Your task to perform on an android device: Empty the shopping cart on ebay. Image 0: 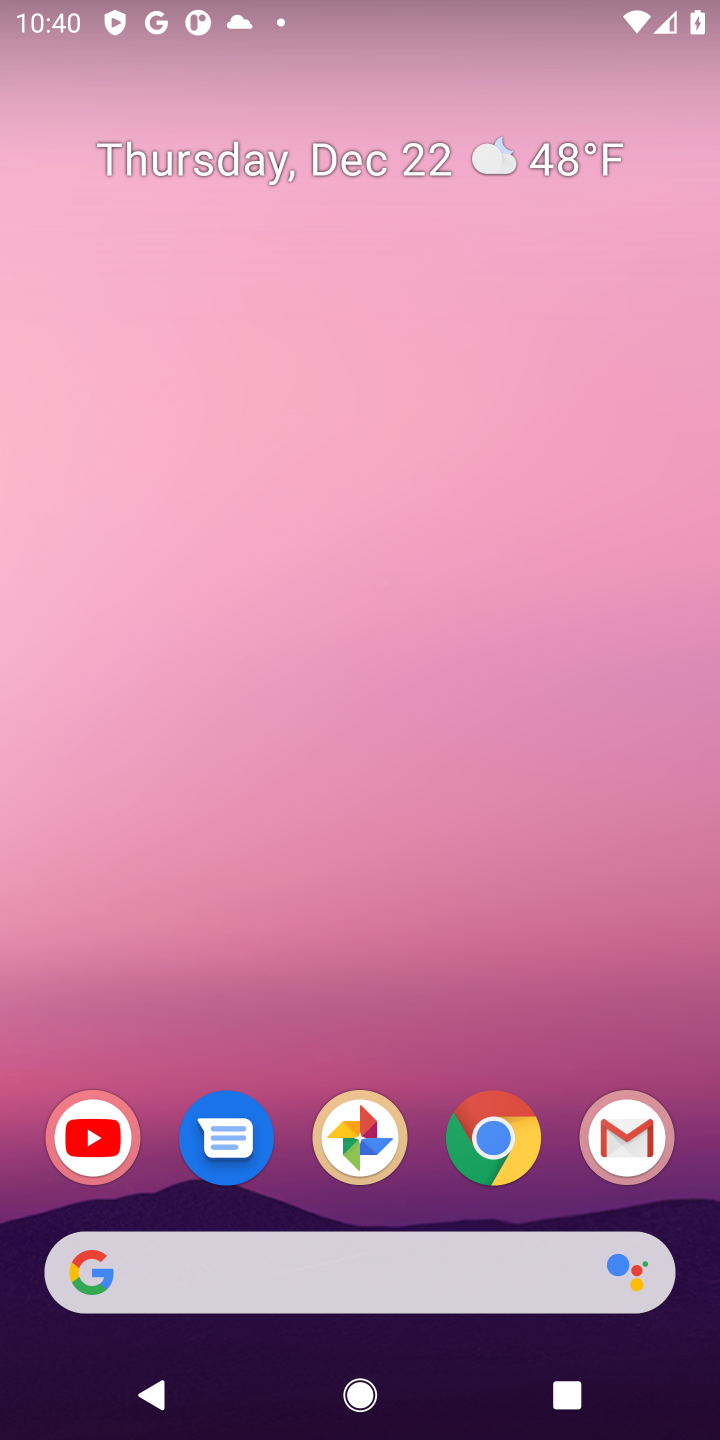
Step 0: click (508, 1126)
Your task to perform on an android device: Empty the shopping cart on ebay. Image 1: 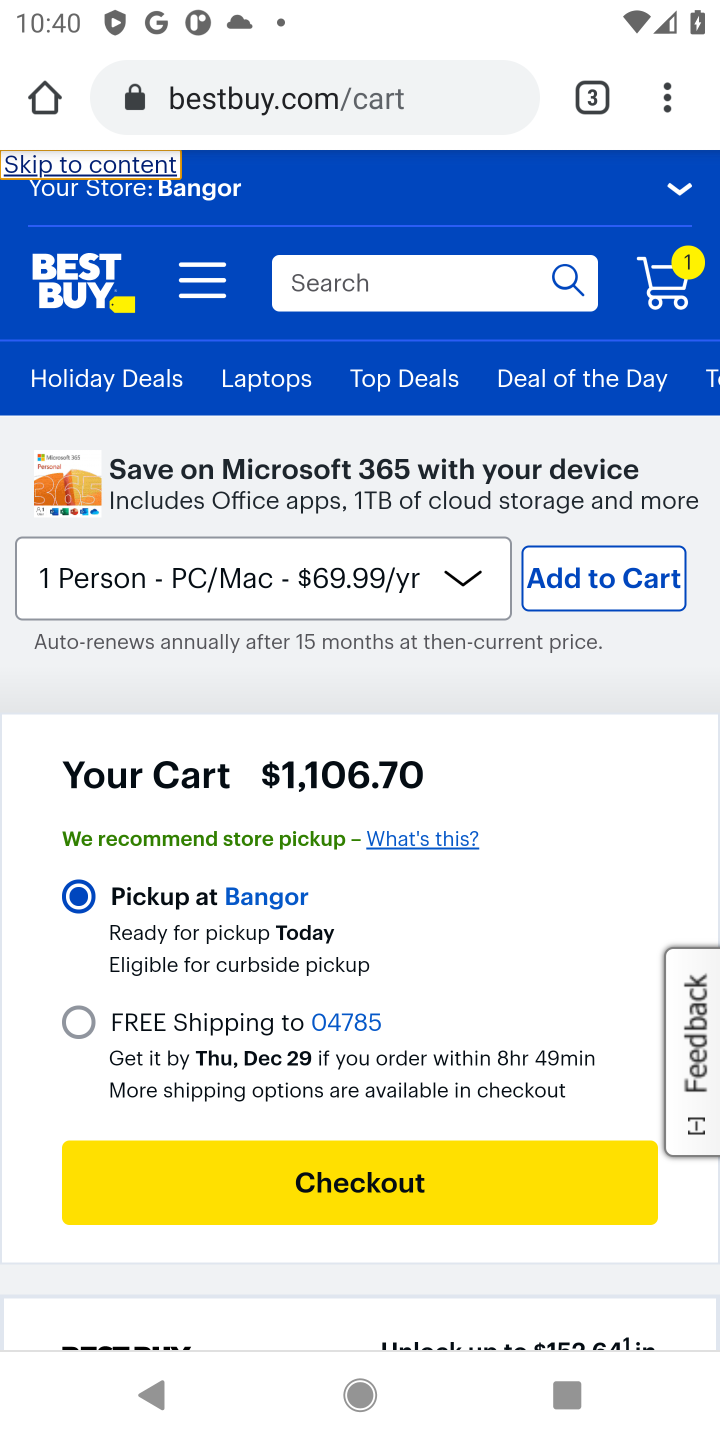
Step 1: click (358, 90)
Your task to perform on an android device: Empty the shopping cart on ebay. Image 2: 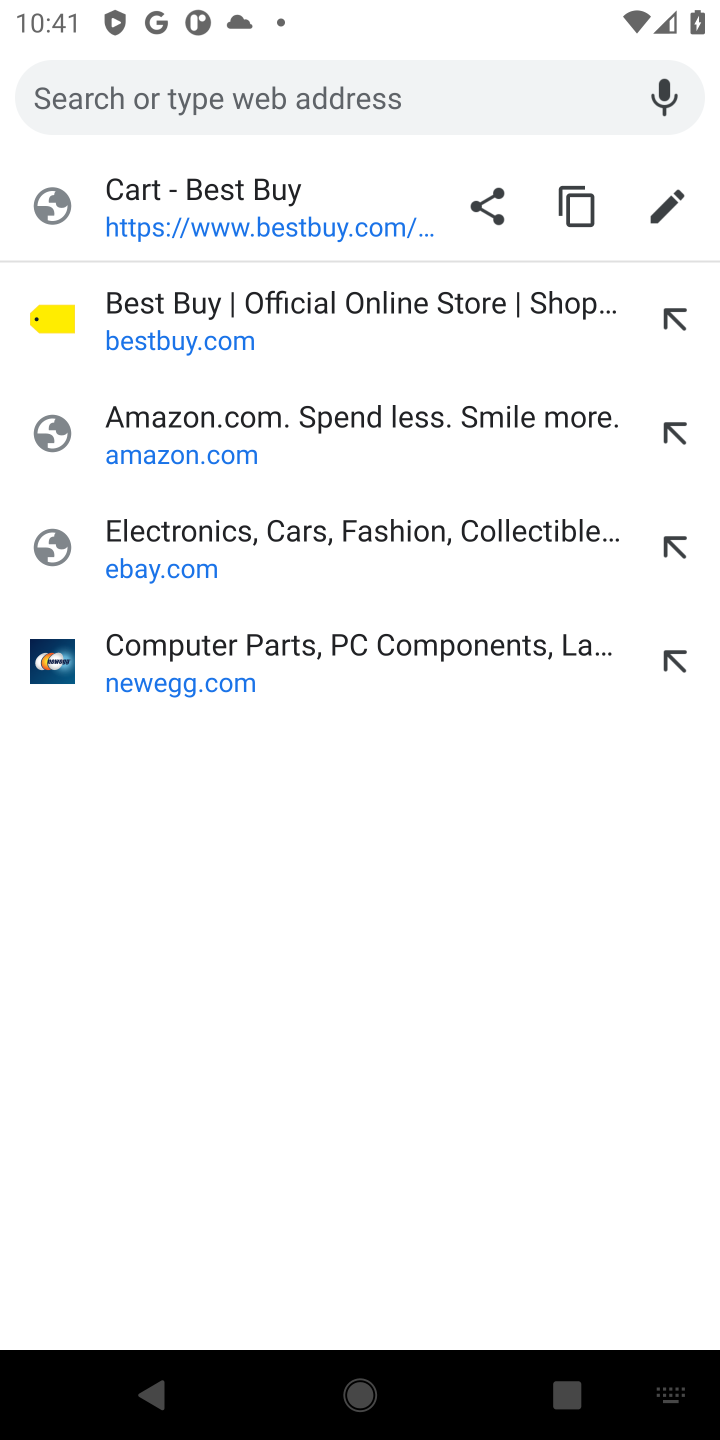
Step 2: click (183, 520)
Your task to perform on an android device: Empty the shopping cart on ebay. Image 3: 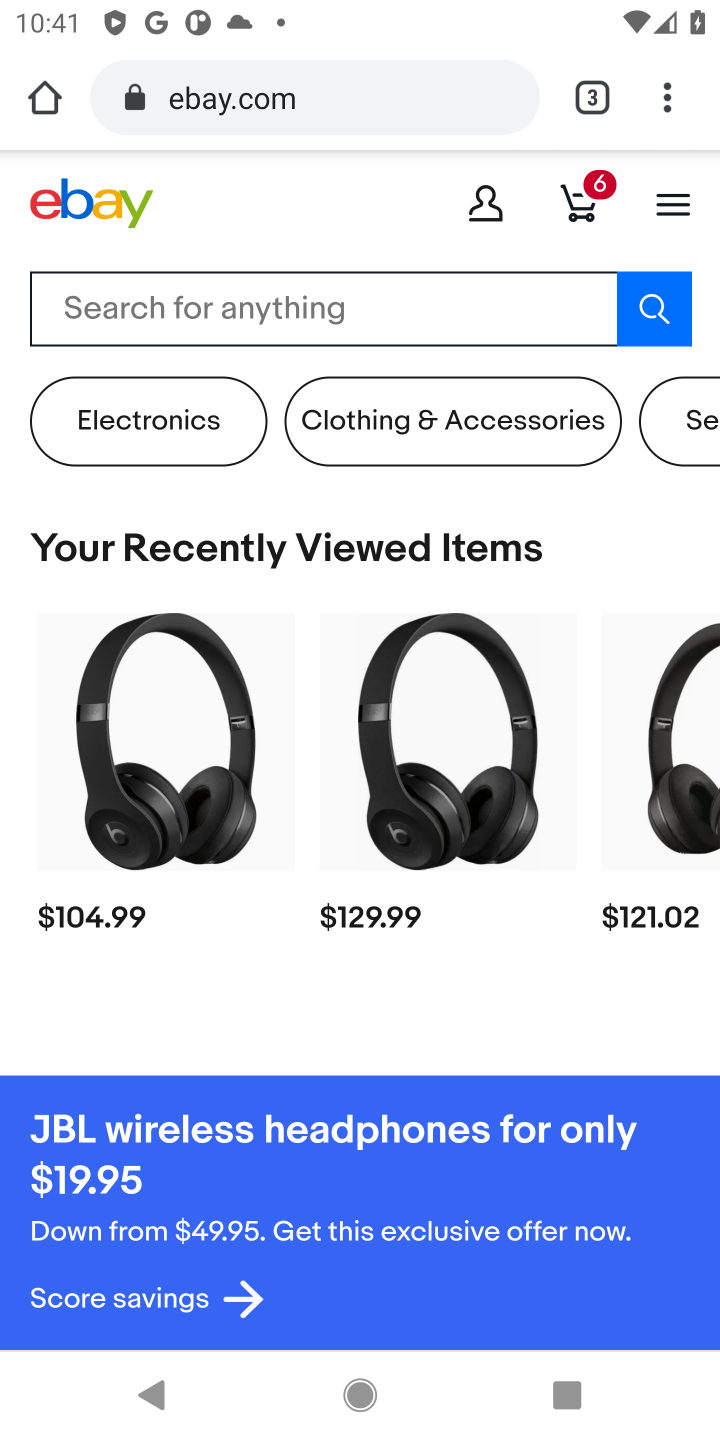
Step 3: click (575, 200)
Your task to perform on an android device: Empty the shopping cart on ebay. Image 4: 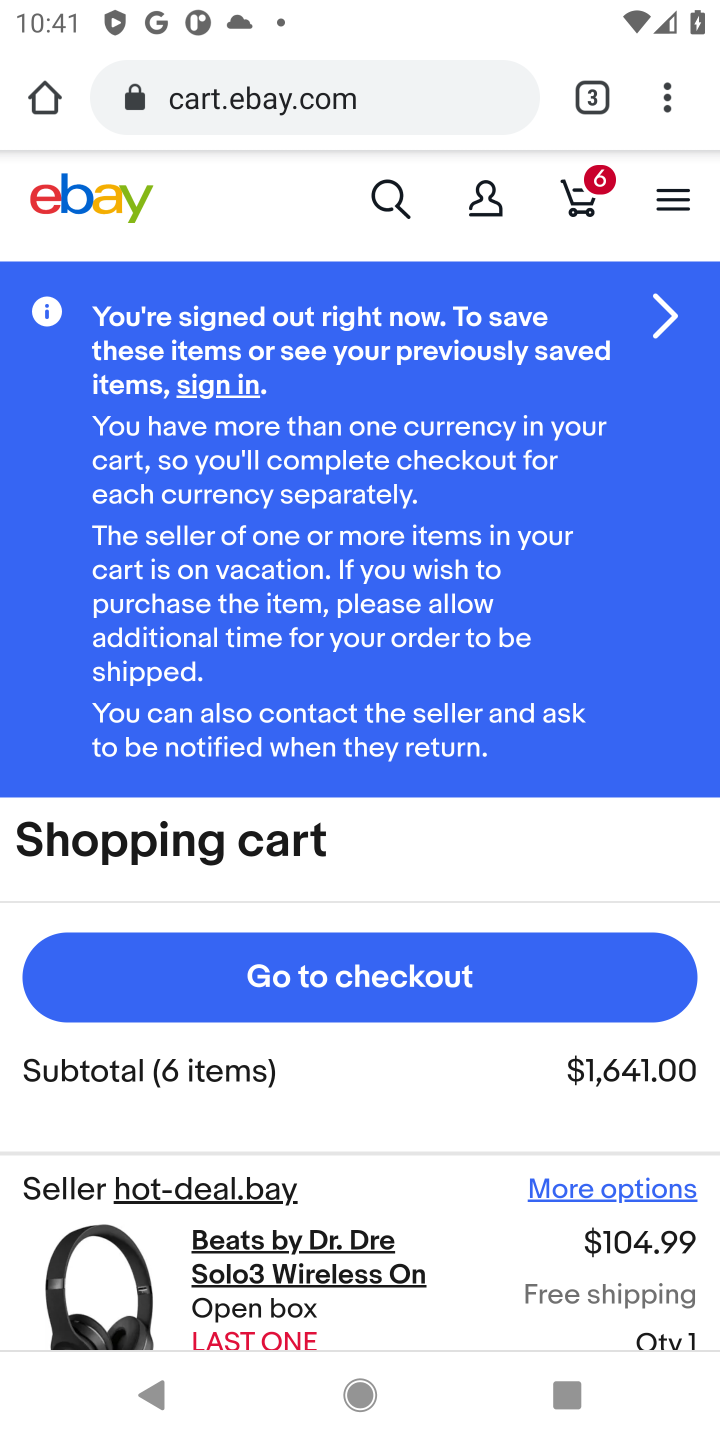
Step 4: drag from (442, 1120) to (440, 373)
Your task to perform on an android device: Empty the shopping cart on ebay. Image 5: 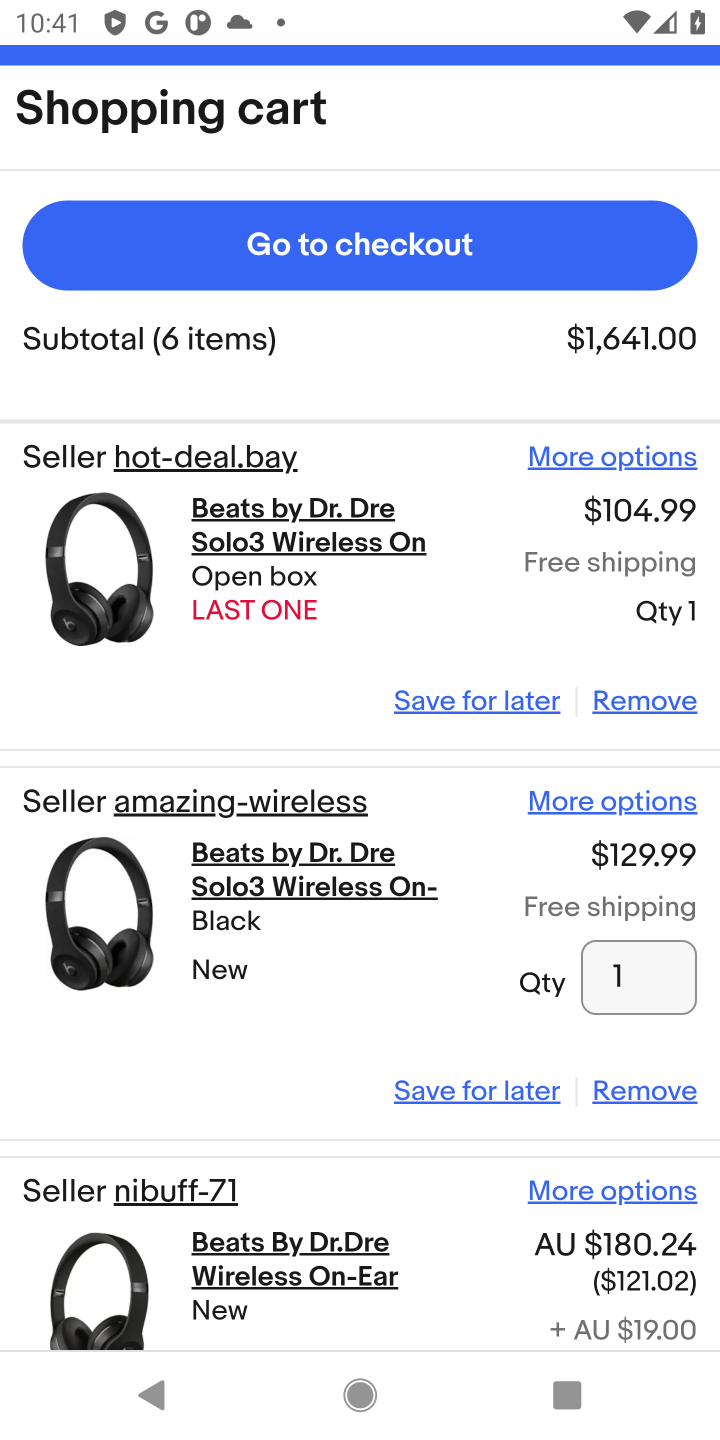
Step 5: click (655, 697)
Your task to perform on an android device: Empty the shopping cart on ebay. Image 6: 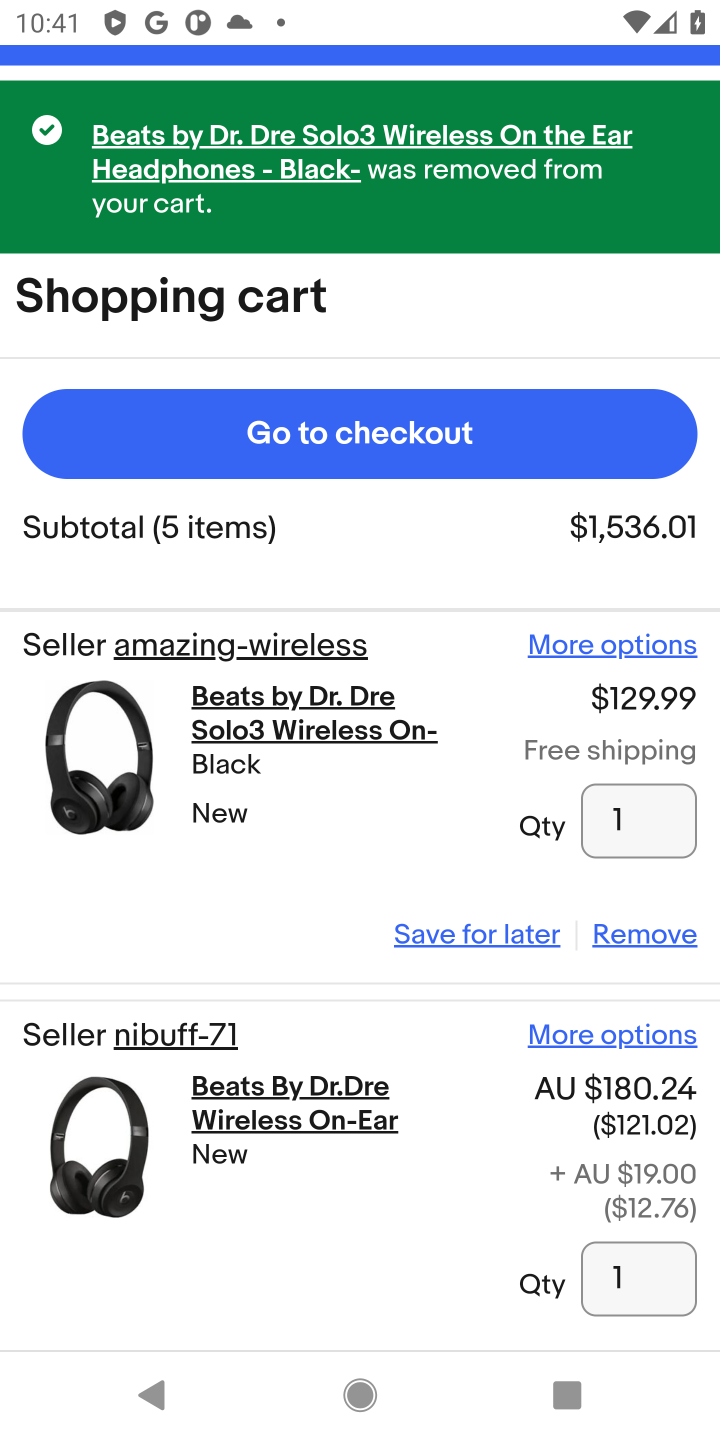
Step 6: click (663, 934)
Your task to perform on an android device: Empty the shopping cart on ebay. Image 7: 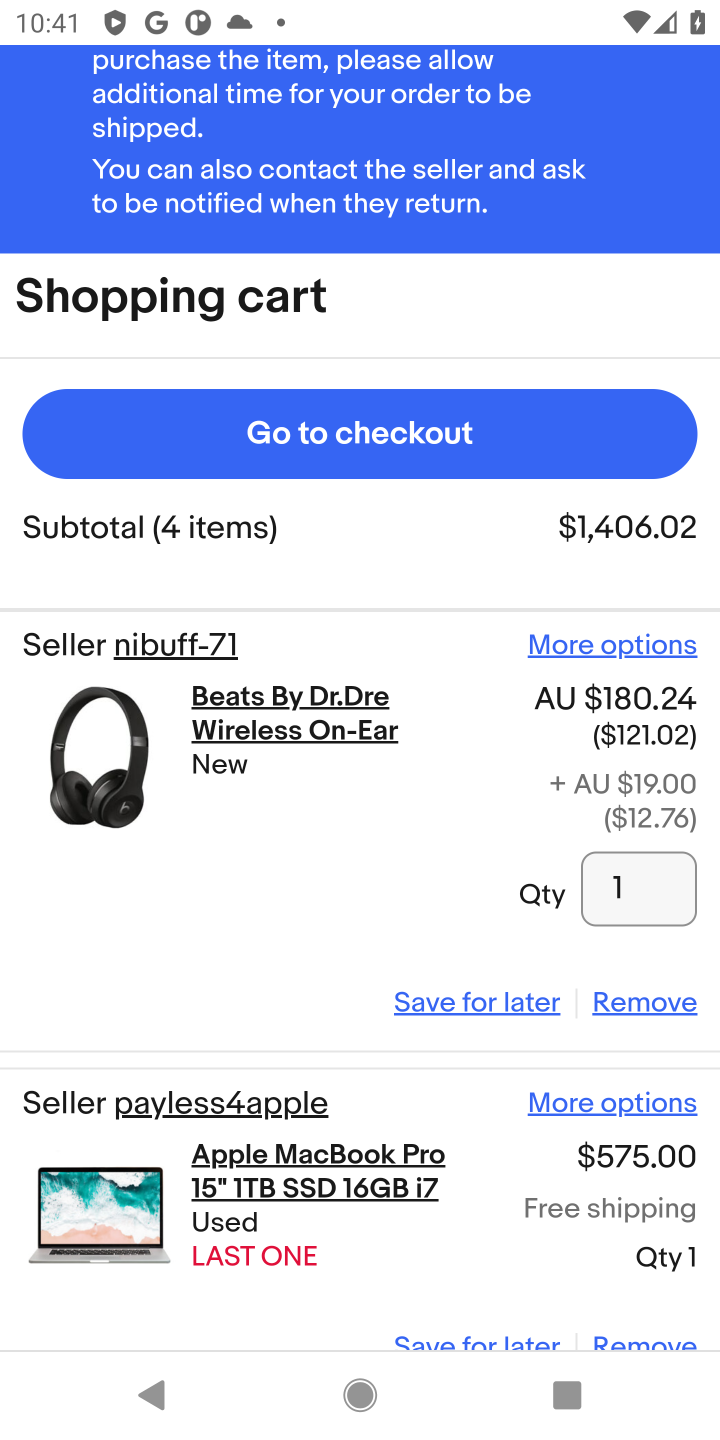
Step 7: click (637, 992)
Your task to perform on an android device: Empty the shopping cart on ebay. Image 8: 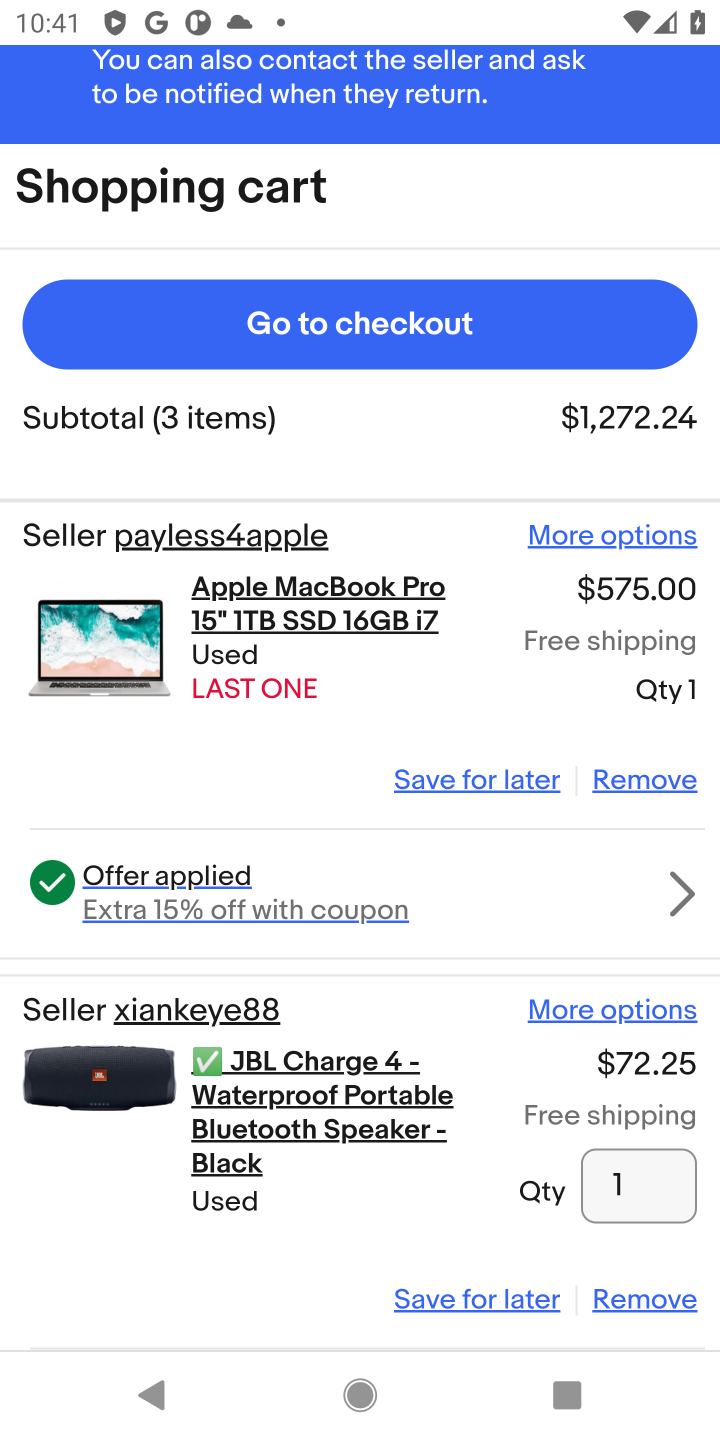
Step 8: click (651, 786)
Your task to perform on an android device: Empty the shopping cart on ebay. Image 9: 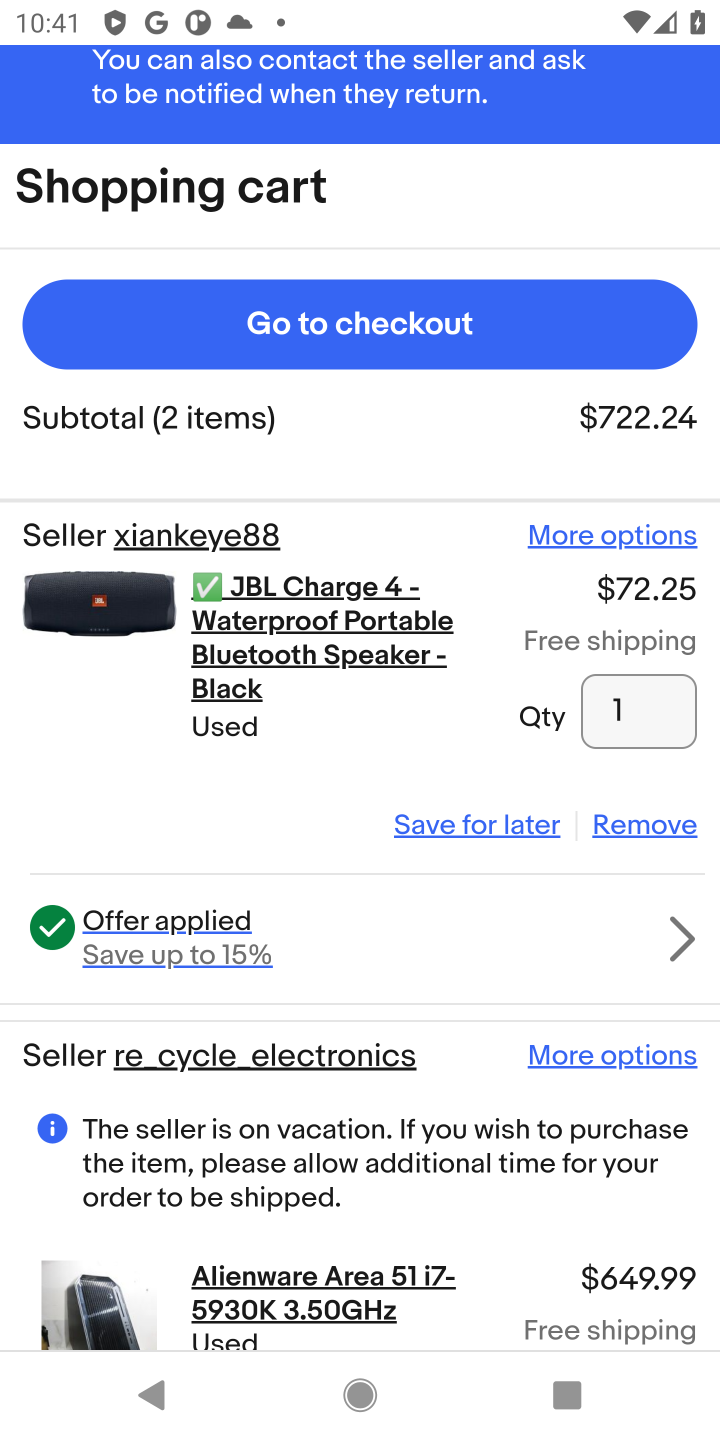
Step 9: click (643, 821)
Your task to perform on an android device: Empty the shopping cart on ebay. Image 10: 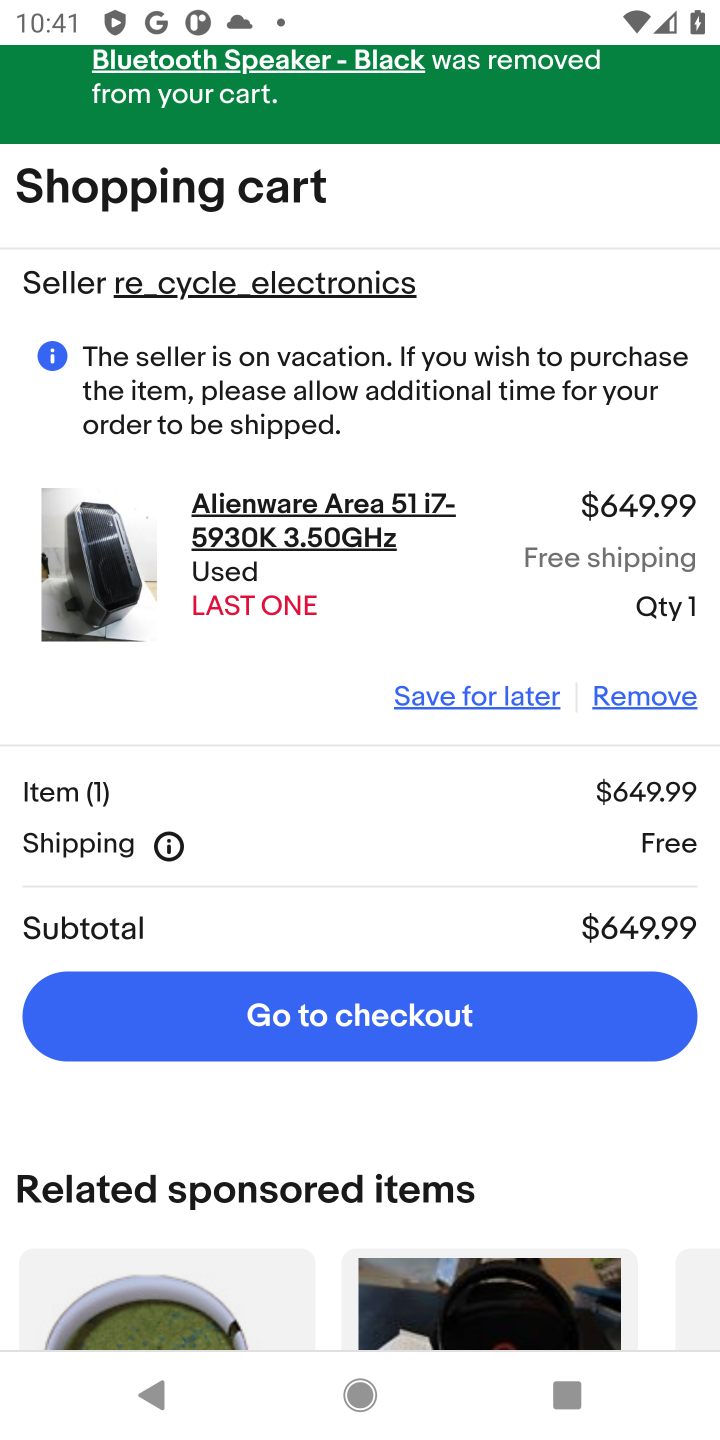
Step 10: click (646, 681)
Your task to perform on an android device: Empty the shopping cart on ebay. Image 11: 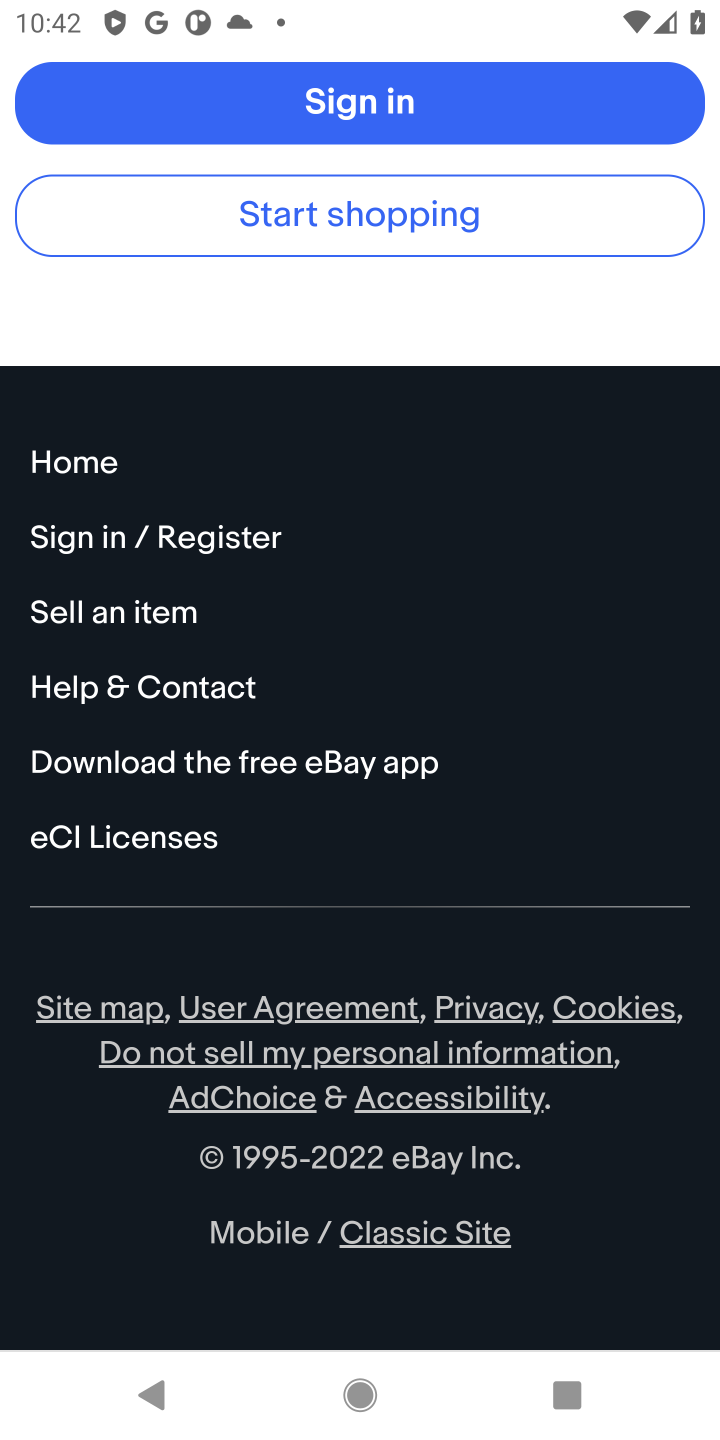
Step 11: task complete